Your task to perform on an android device: Go to Android settings Image 0: 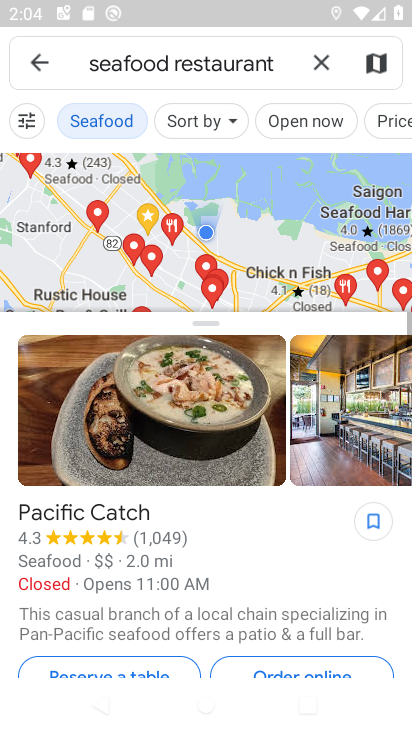
Step 0: press home button
Your task to perform on an android device: Go to Android settings Image 1: 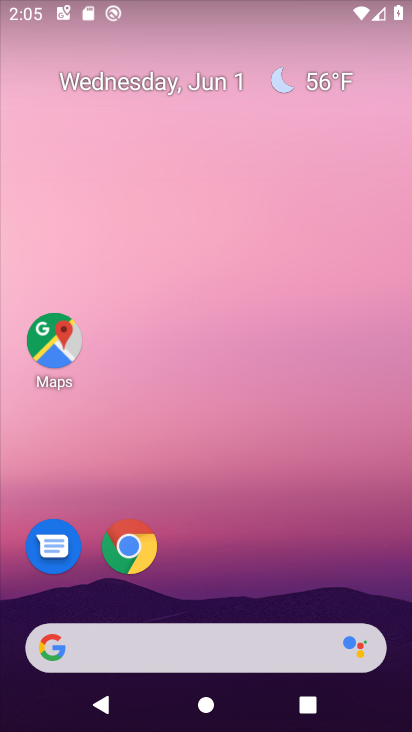
Step 1: drag from (156, 730) to (200, 5)
Your task to perform on an android device: Go to Android settings Image 2: 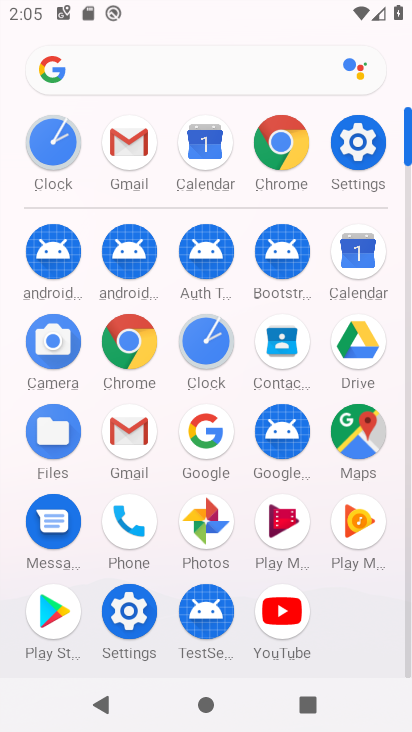
Step 2: click (358, 167)
Your task to perform on an android device: Go to Android settings Image 3: 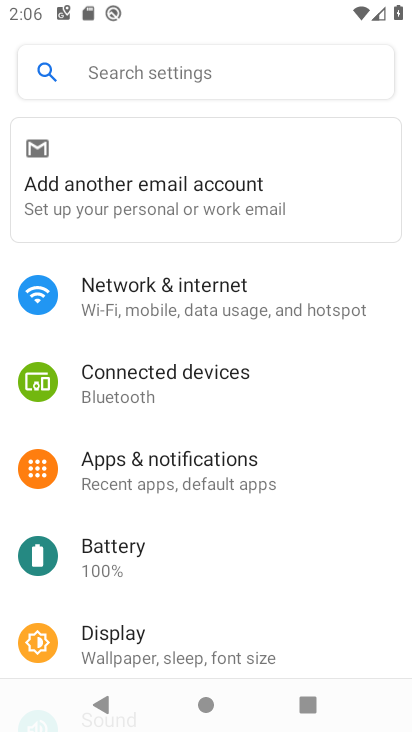
Step 3: task complete